Your task to perform on an android device: move an email to a new category in the gmail app Image 0: 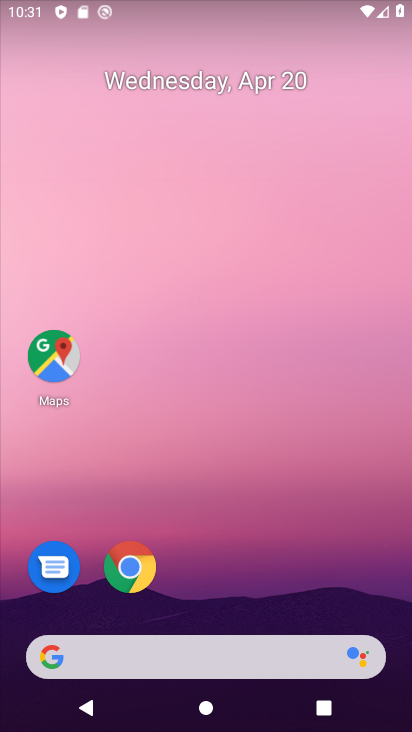
Step 0: drag from (317, 350) to (335, 165)
Your task to perform on an android device: move an email to a new category in the gmail app Image 1: 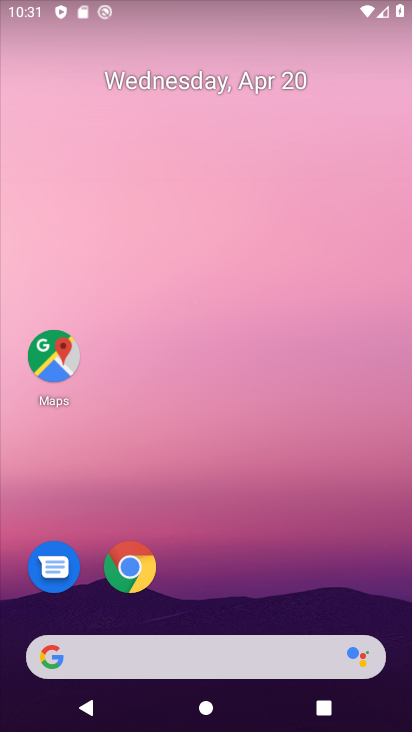
Step 1: drag from (297, 269) to (299, 200)
Your task to perform on an android device: move an email to a new category in the gmail app Image 2: 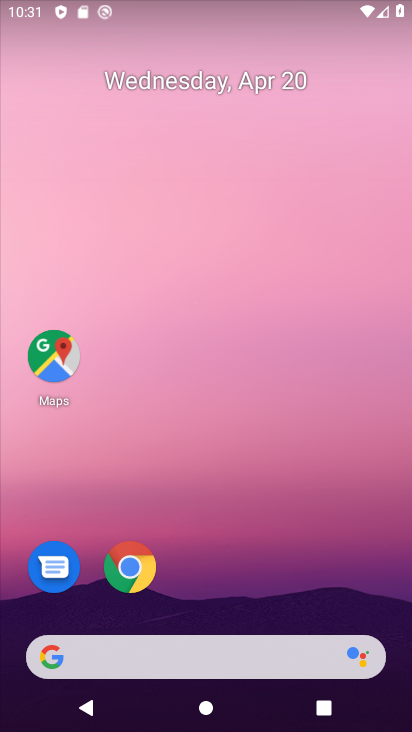
Step 2: drag from (264, 628) to (323, 176)
Your task to perform on an android device: move an email to a new category in the gmail app Image 3: 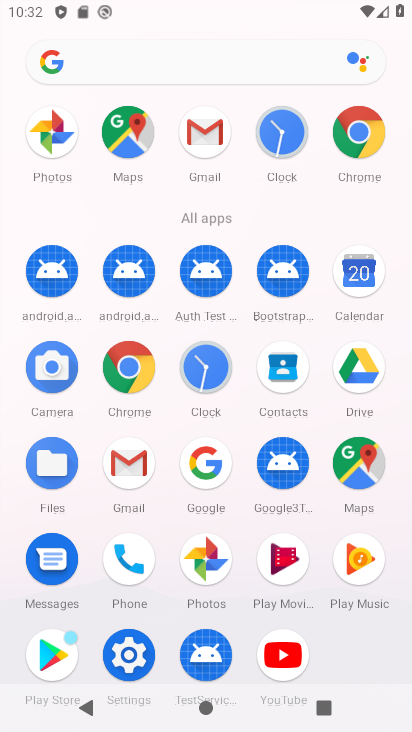
Step 3: click (212, 131)
Your task to perform on an android device: move an email to a new category in the gmail app Image 4: 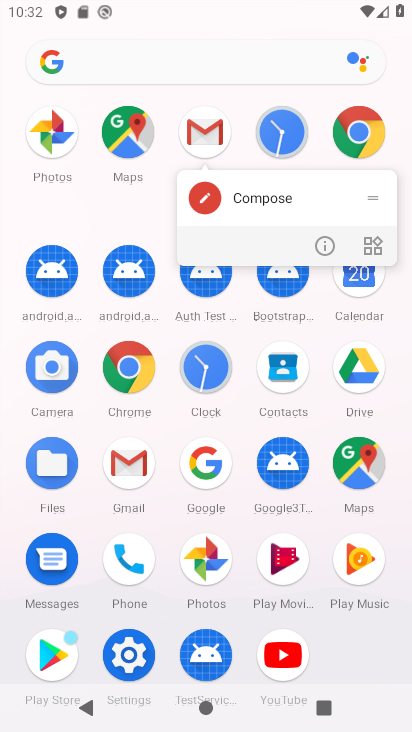
Step 4: click (212, 131)
Your task to perform on an android device: move an email to a new category in the gmail app Image 5: 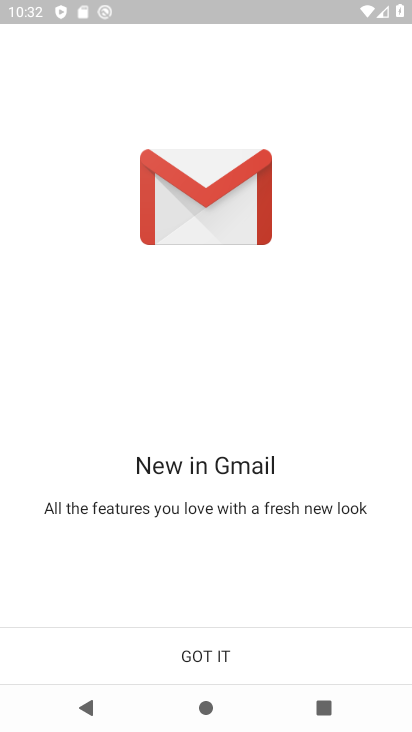
Step 5: click (209, 639)
Your task to perform on an android device: move an email to a new category in the gmail app Image 6: 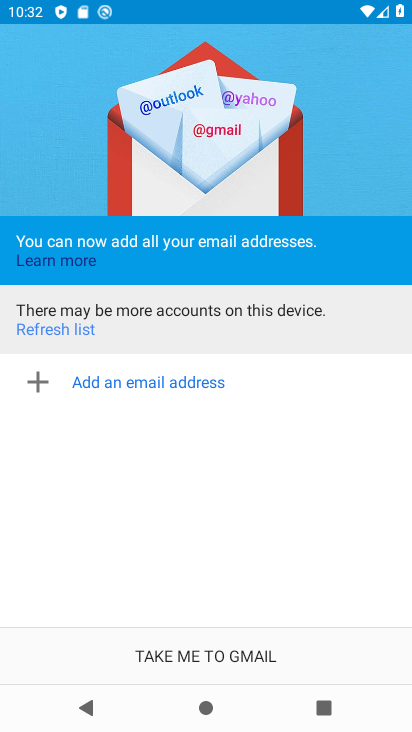
Step 6: click (209, 652)
Your task to perform on an android device: move an email to a new category in the gmail app Image 7: 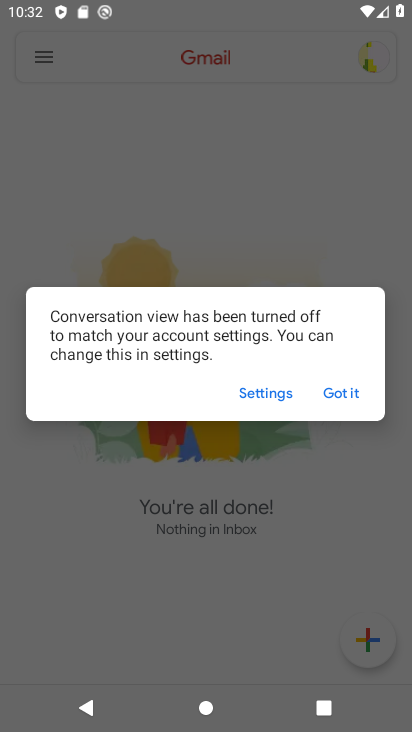
Step 7: click (335, 397)
Your task to perform on an android device: move an email to a new category in the gmail app Image 8: 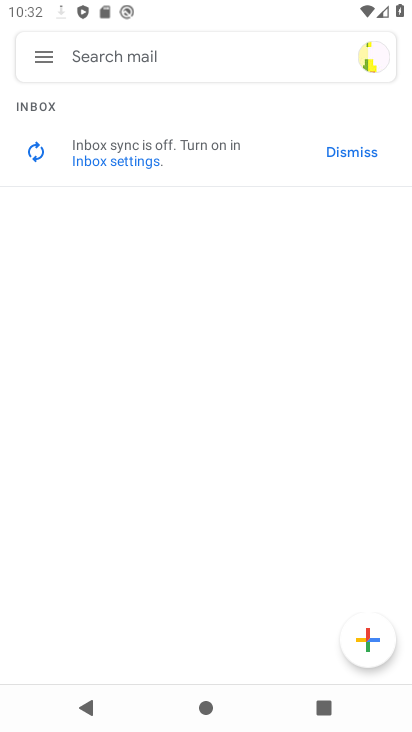
Step 8: click (41, 50)
Your task to perform on an android device: move an email to a new category in the gmail app Image 9: 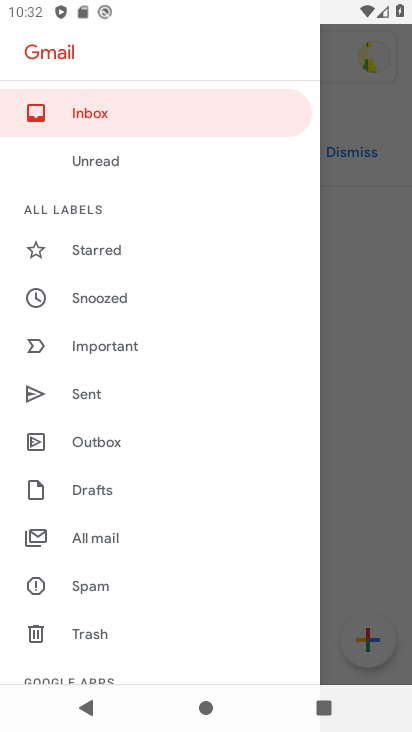
Step 9: click (118, 542)
Your task to perform on an android device: move an email to a new category in the gmail app Image 10: 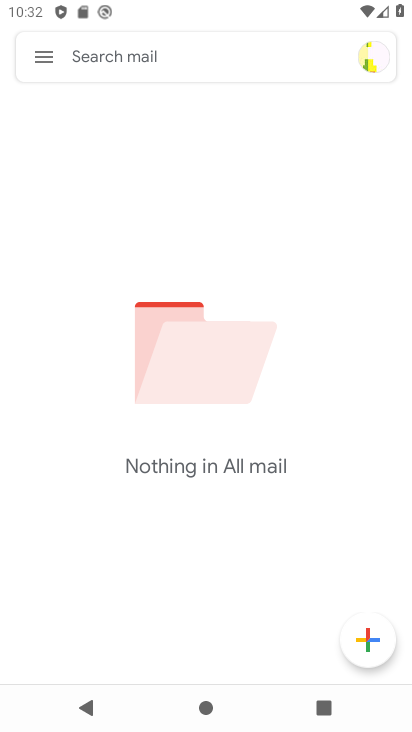
Step 10: task complete